Your task to perform on an android device: install app "Google Find My Device" Image 0: 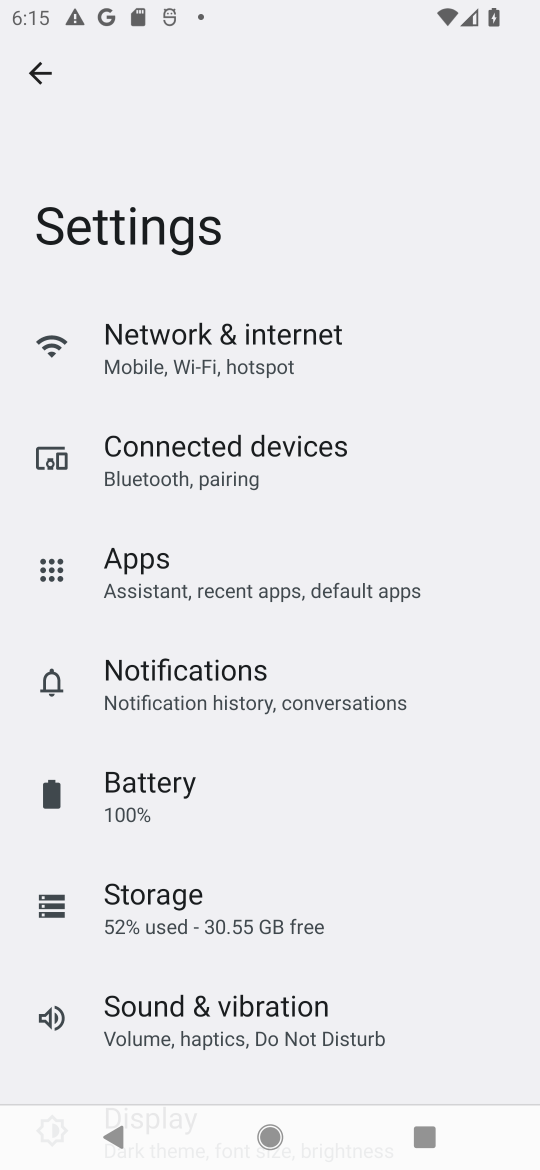
Step 0: press home button
Your task to perform on an android device: install app "Google Find My Device" Image 1: 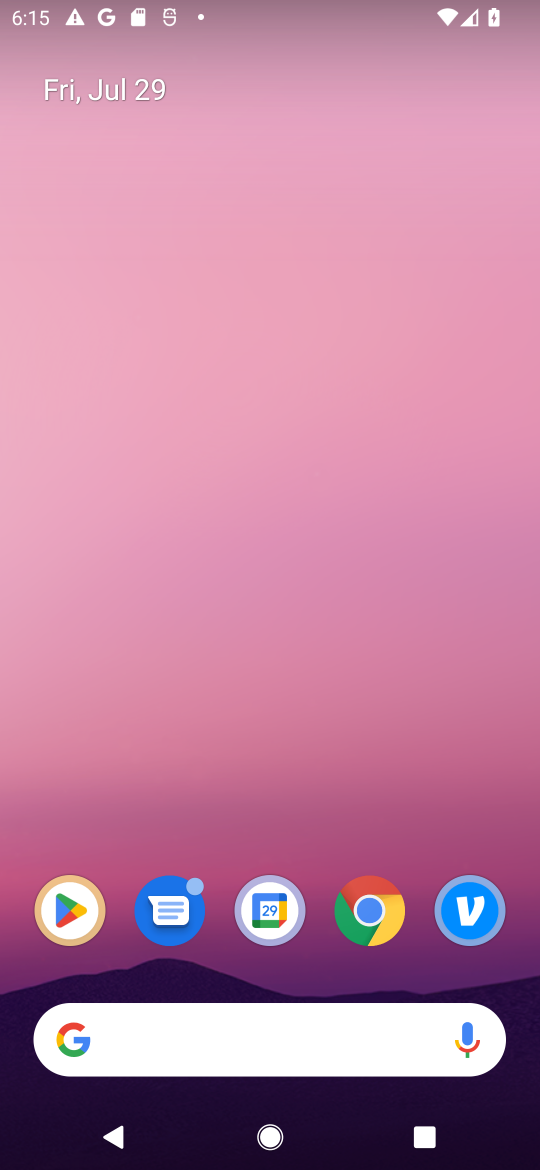
Step 1: drag from (190, 941) to (194, 337)
Your task to perform on an android device: install app "Google Find My Device" Image 2: 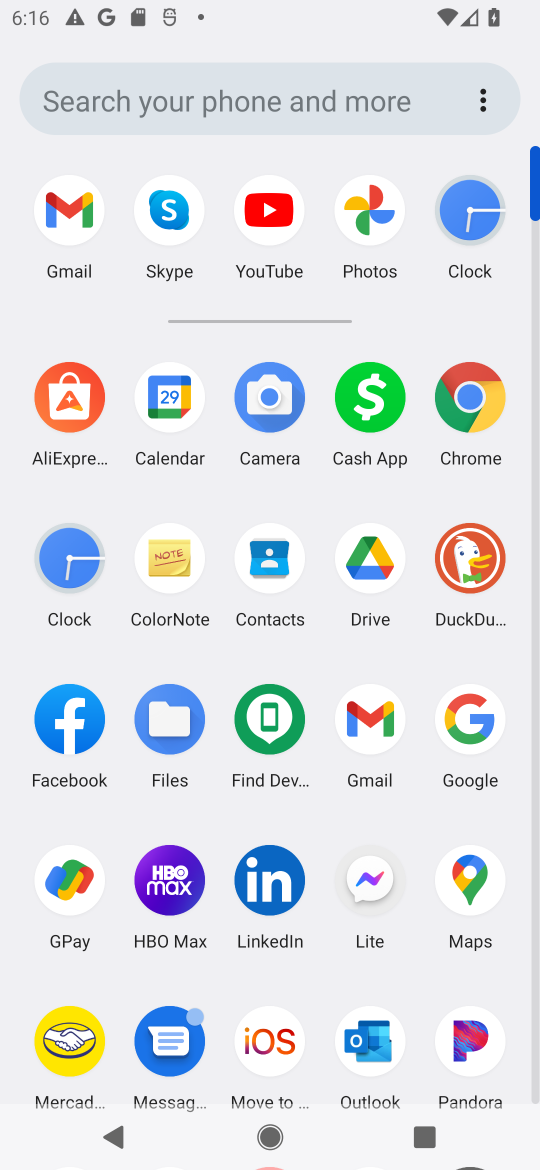
Step 2: drag from (239, 1004) to (199, 454)
Your task to perform on an android device: install app "Google Find My Device" Image 3: 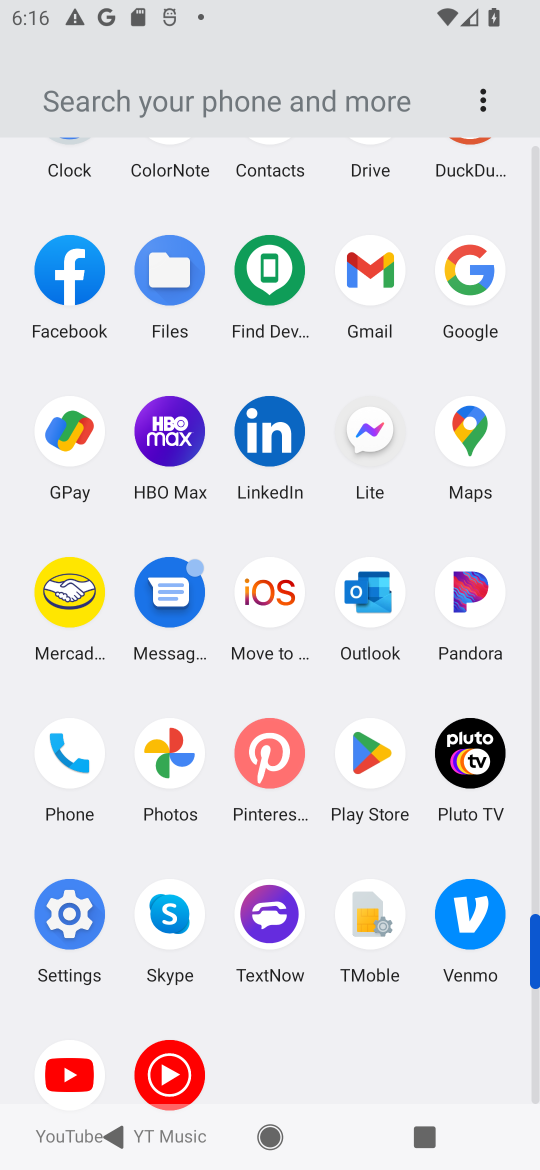
Step 3: click (376, 760)
Your task to perform on an android device: install app "Google Find My Device" Image 4: 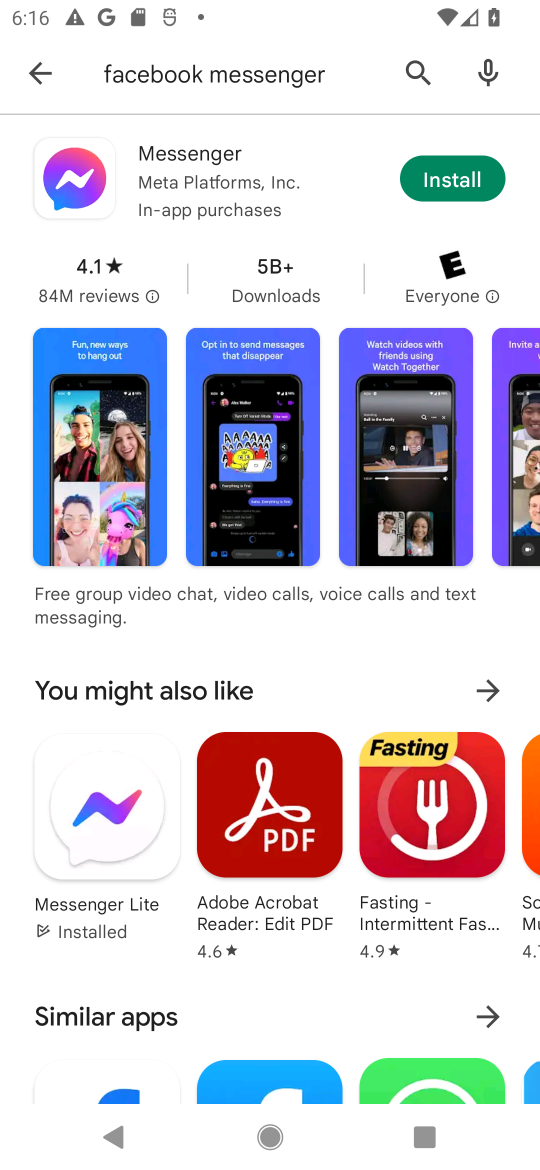
Step 4: click (34, 73)
Your task to perform on an android device: install app "Google Find My Device" Image 5: 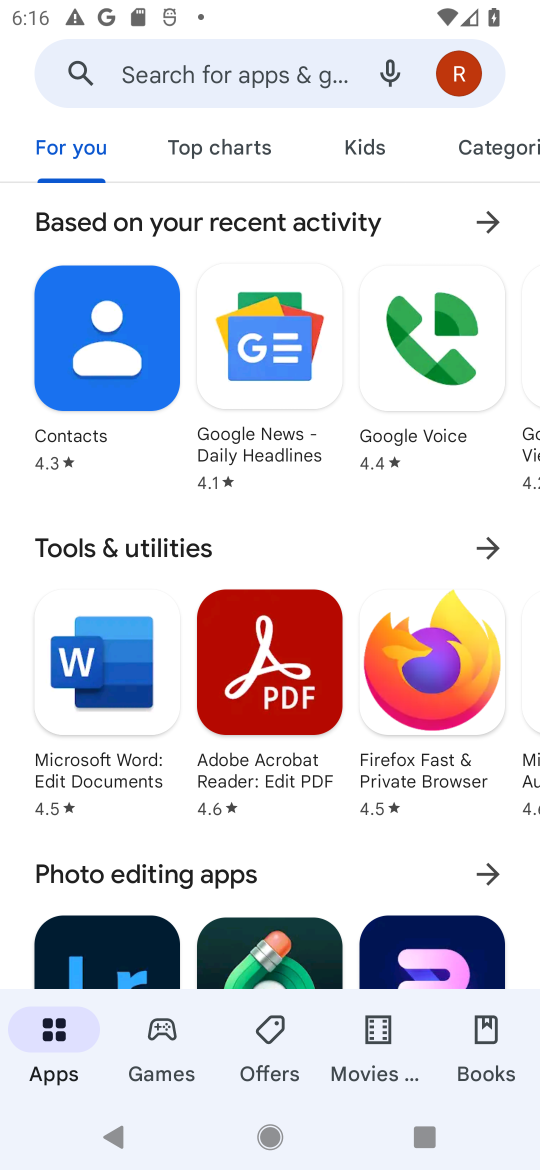
Step 5: click (136, 65)
Your task to perform on an android device: install app "Google Find My Device" Image 6: 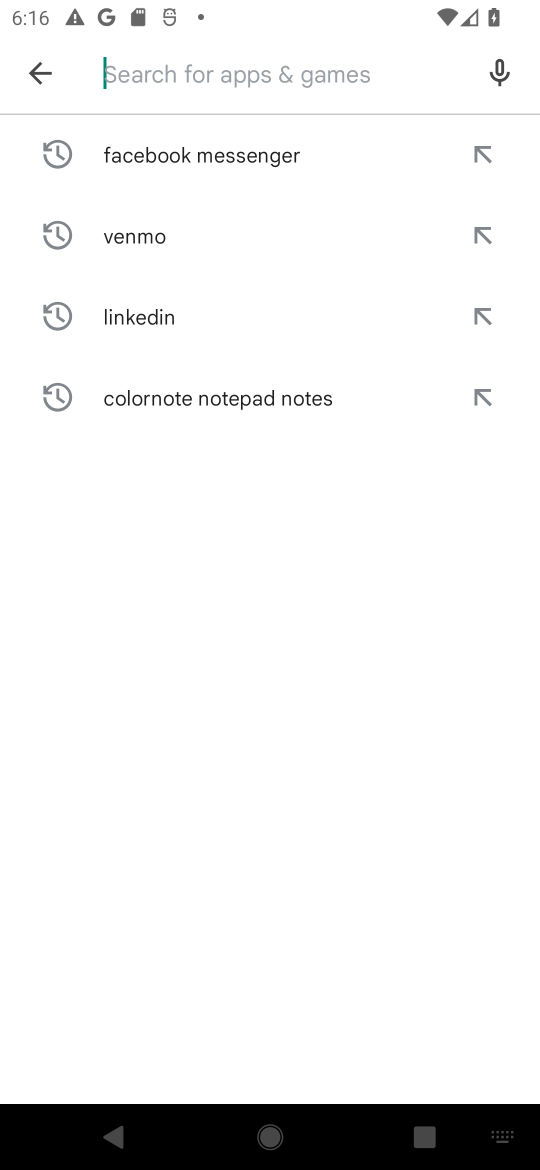
Step 6: type "Google Find My Device"
Your task to perform on an android device: install app "Google Find My Device" Image 7: 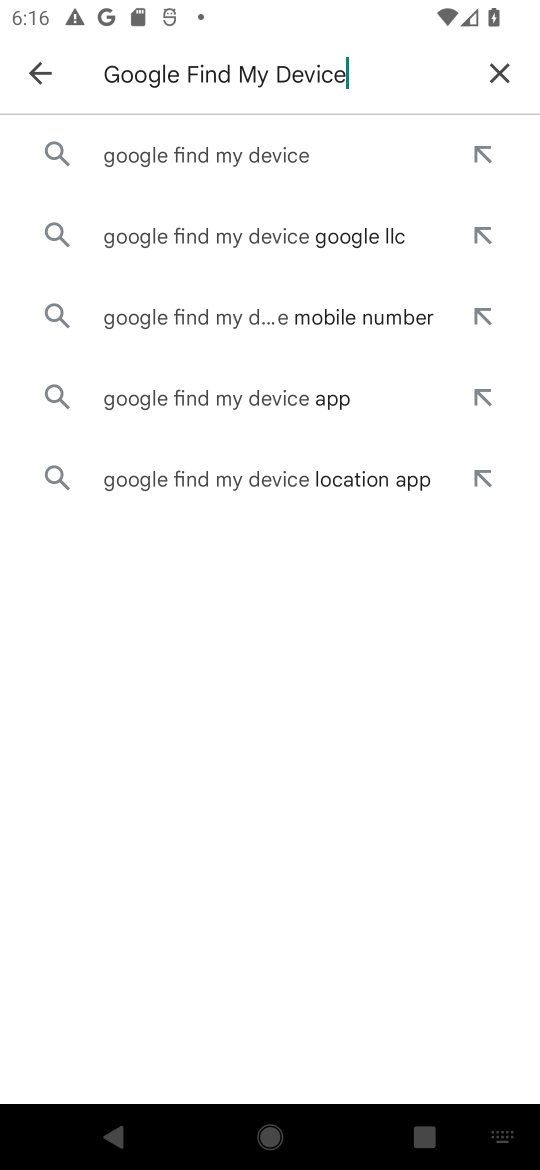
Step 7: click (217, 160)
Your task to perform on an android device: install app "Google Find My Device" Image 8: 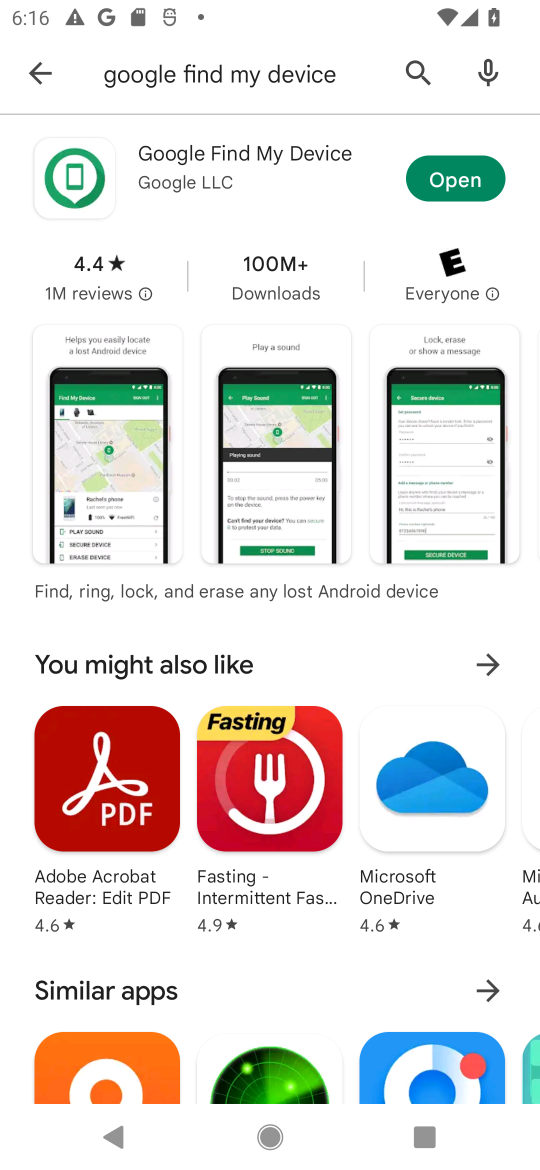
Step 8: click (428, 176)
Your task to perform on an android device: install app "Google Find My Device" Image 9: 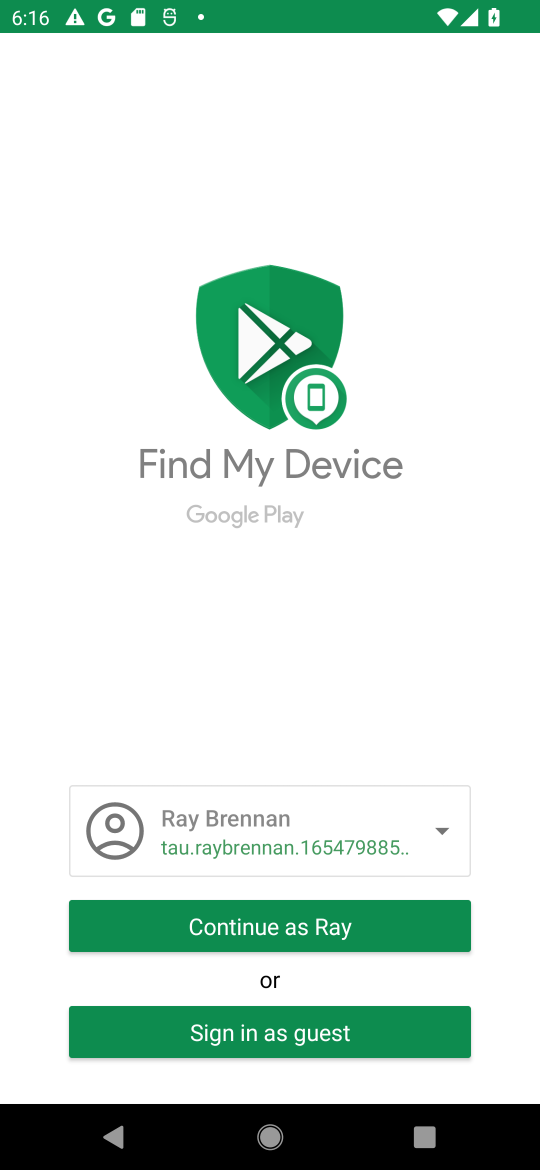
Step 9: task complete